Your task to perform on an android device: Search for asus zenbook on ebay.com, select the first entry, and add it to the cart. Image 0: 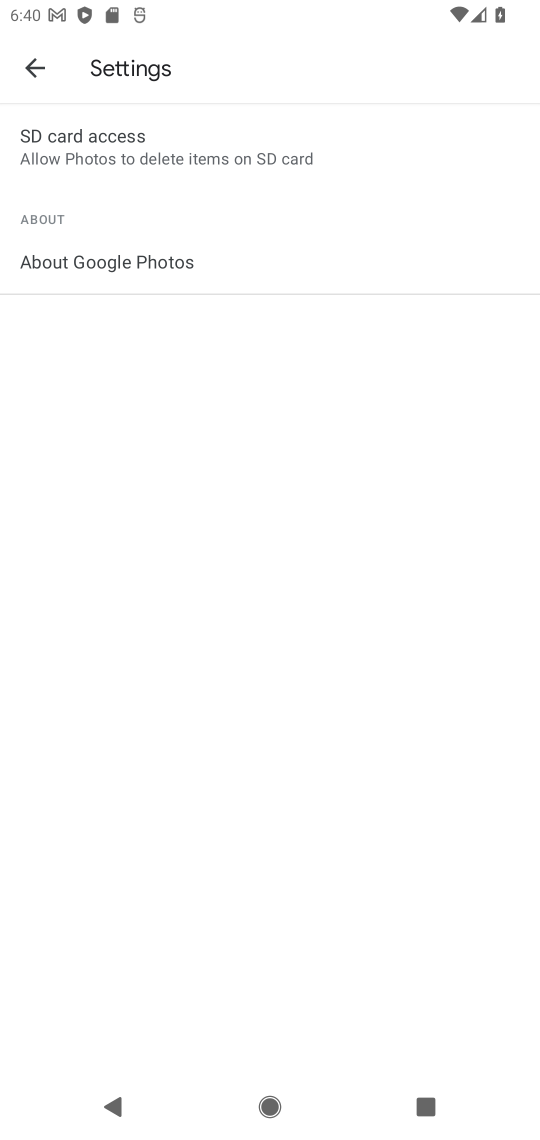
Step 0: press home button
Your task to perform on an android device: Search for asus zenbook on ebay.com, select the first entry, and add it to the cart. Image 1: 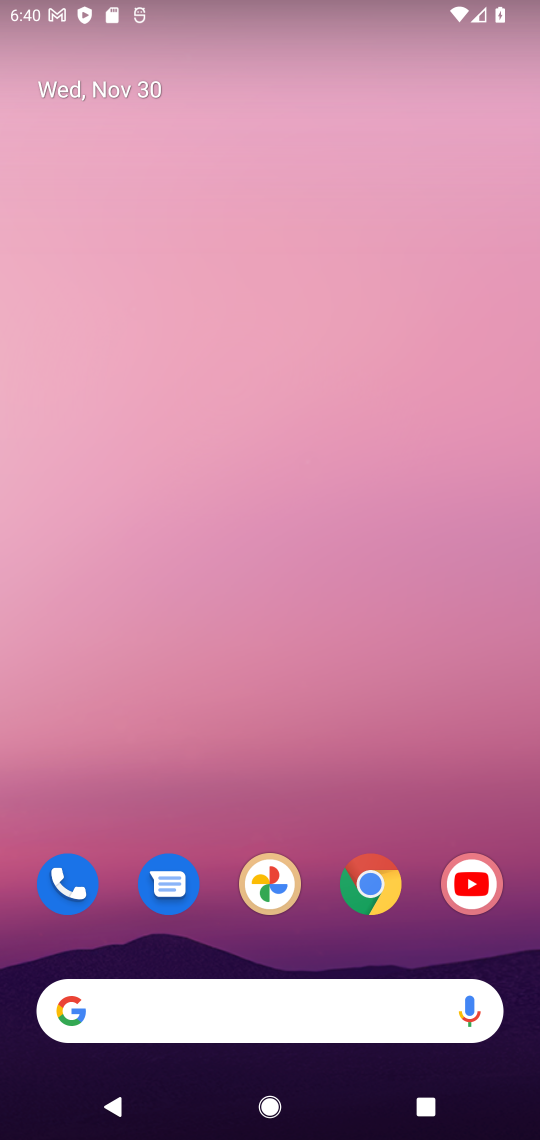
Step 1: click (353, 886)
Your task to perform on an android device: Search for asus zenbook on ebay.com, select the first entry, and add it to the cart. Image 2: 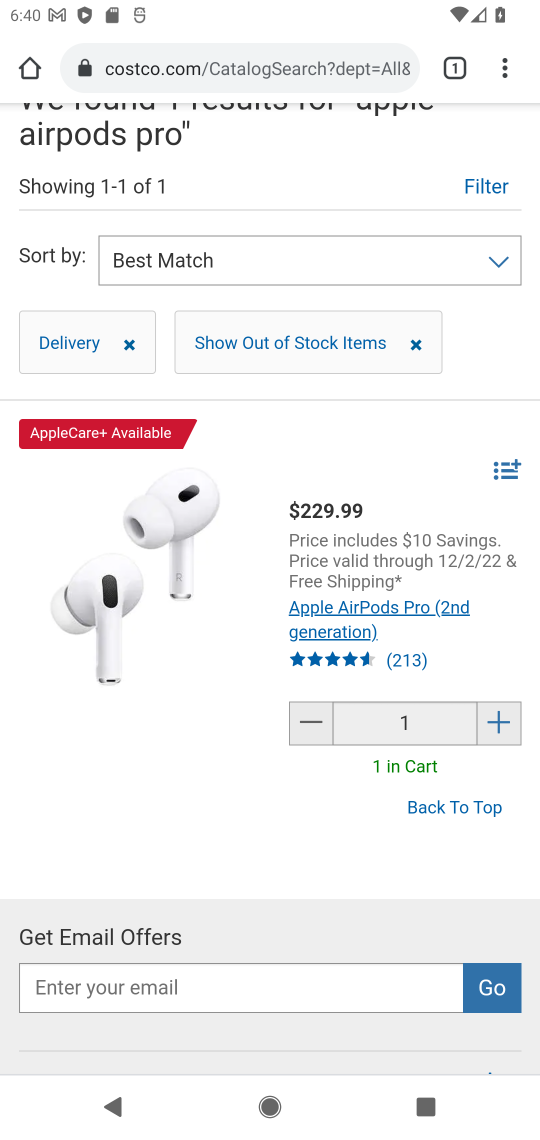
Step 2: click (223, 61)
Your task to perform on an android device: Search for asus zenbook on ebay.com, select the first entry, and add it to the cart. Image 3: 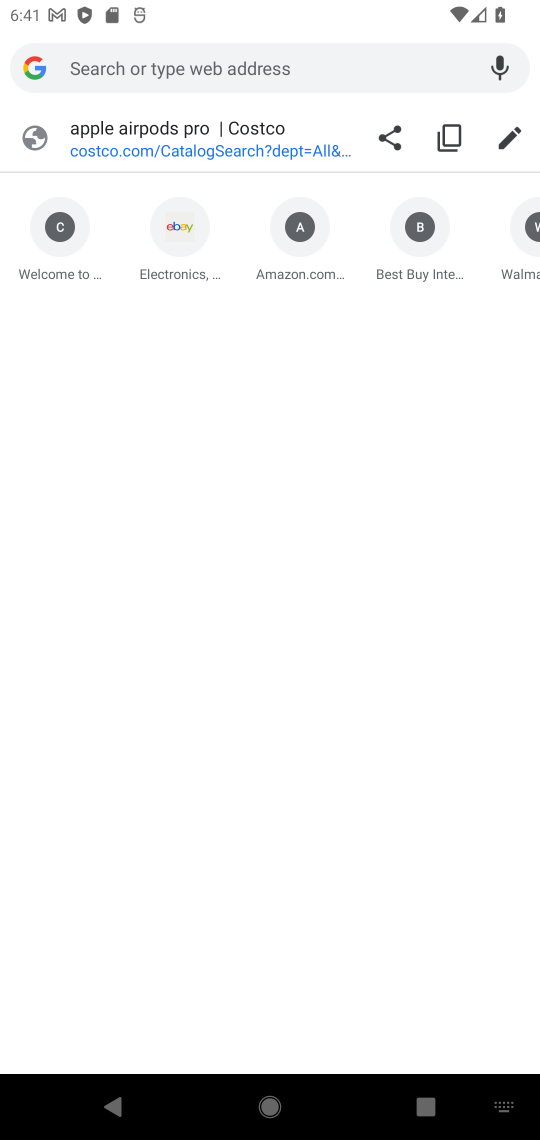
Step 3: type "ebay.com"
Your task to perform on an android device: Search for asus zenbook on ebay.com, select the first entry, and add it to the cart. Image 4: 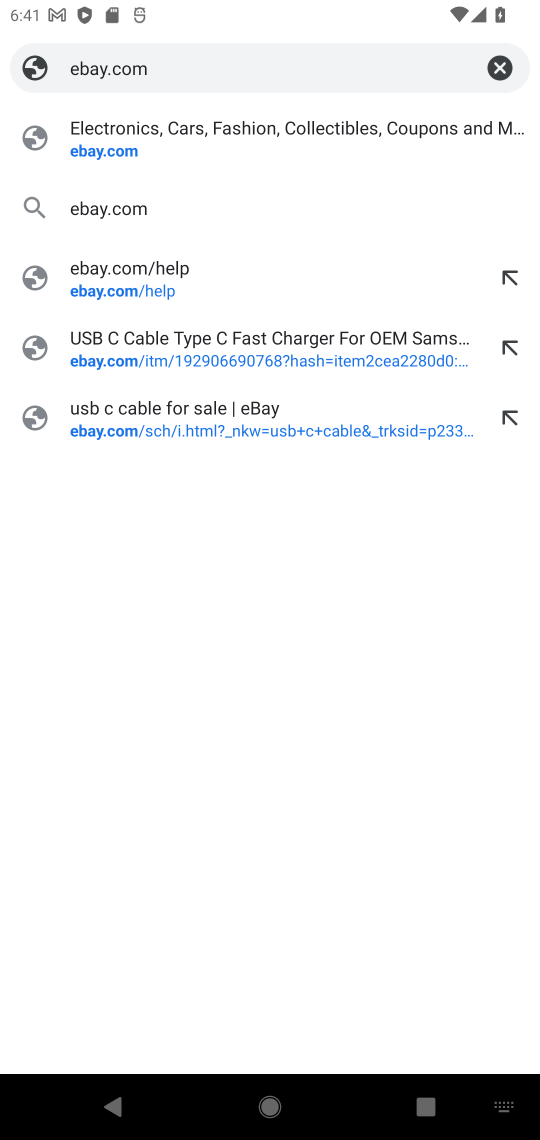
Step 4: click (91, 152)
Your task to perform on an android device: Search for asus zenbook on ebay.com, select the first entry, and add it to the cart. Image 5: 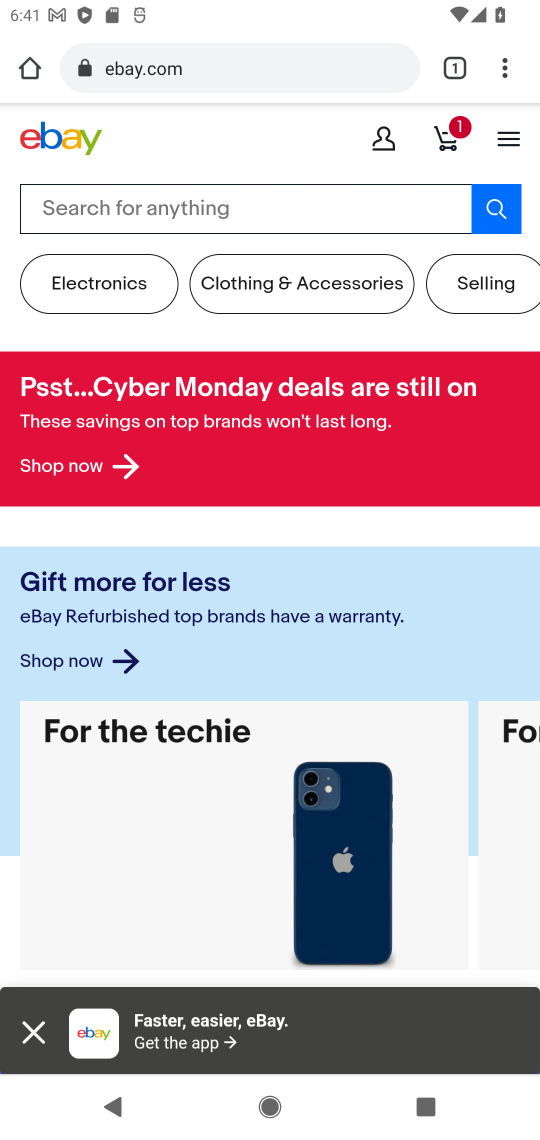
Step 5: click (140, 208)
Your task to perform on an android device: Search for asus zenbook on ebay.com, select the first entry, and add it to the cart. Image 6: 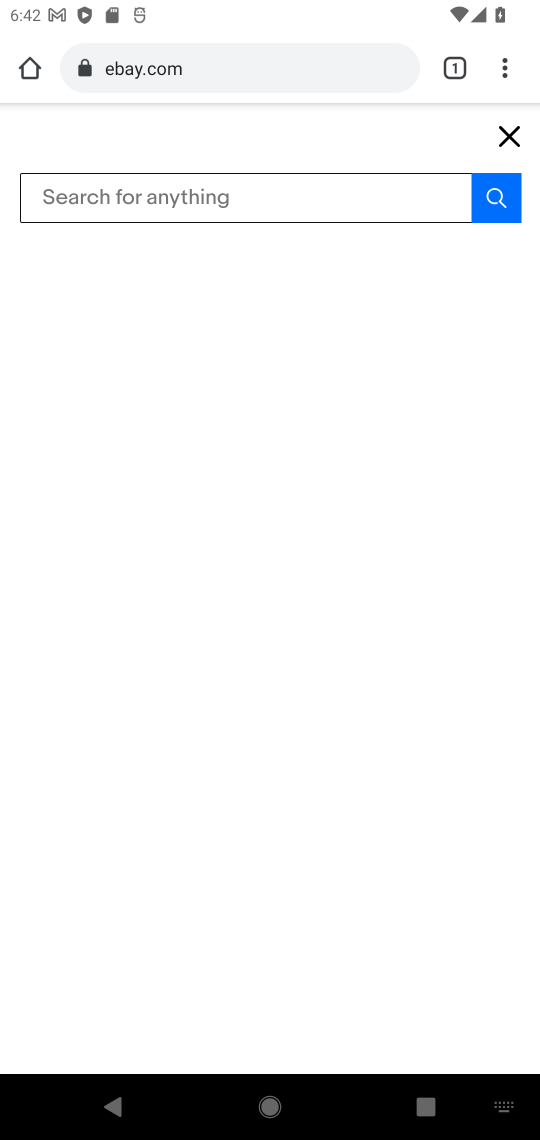
Step 6: type "asus zenbook"
Your task to perform on an android device: Search for asus zenbook on ebay.com, select the first entry, and add it to the cart. Image 7: 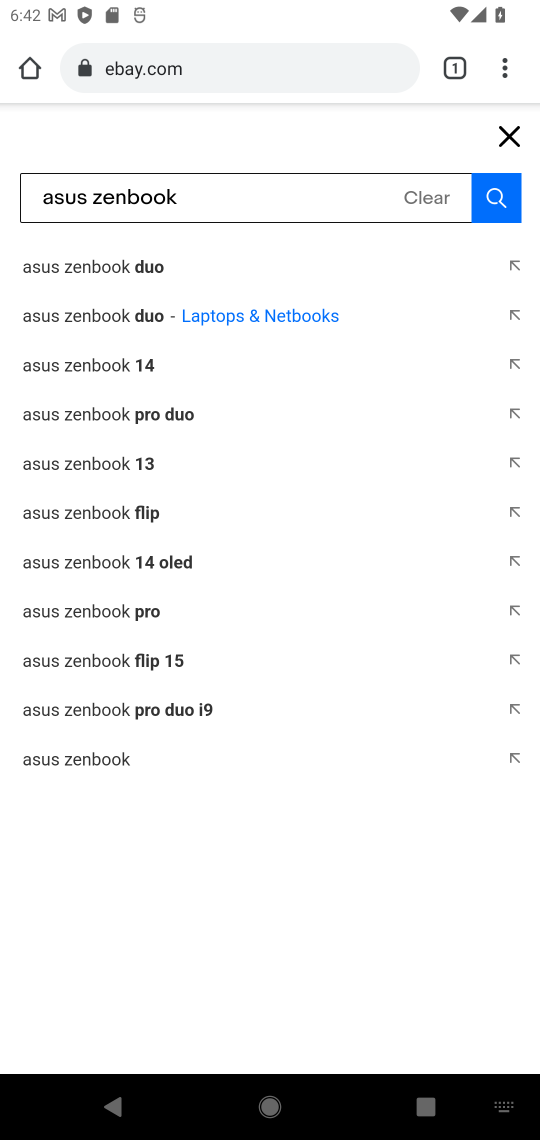
Step 7: click (79, 763)
Your task to perform on an android device: Search for asus zenbook on ebay.com, select the first entry, and add it to the cart. Image 8: 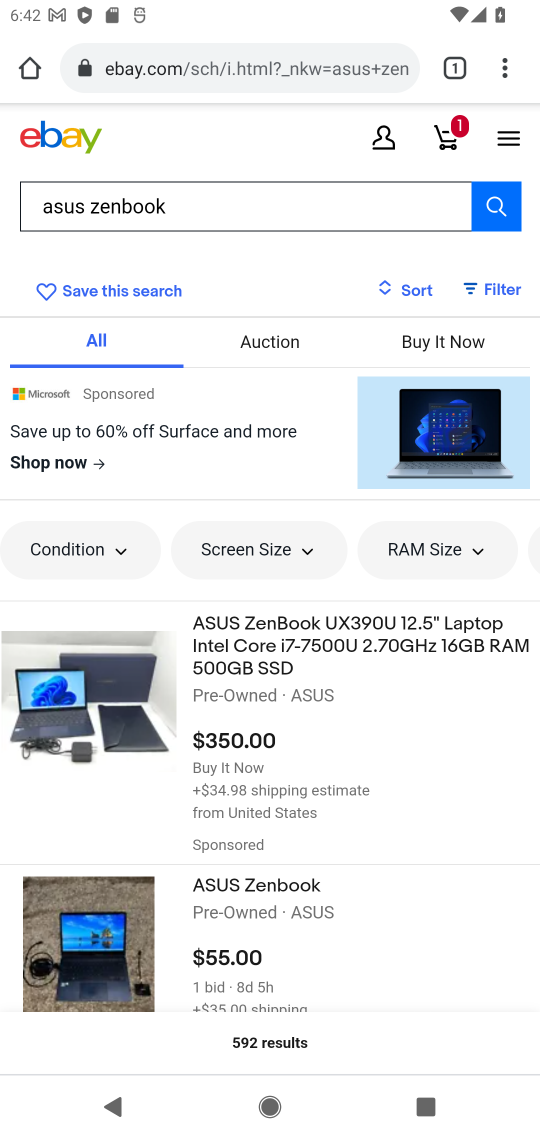
Step 8: click (315, 643)
Your task to perform on an android device: Search for asus zenbook on ebay.com, select the first entry, and add it to the cart. Image 9: 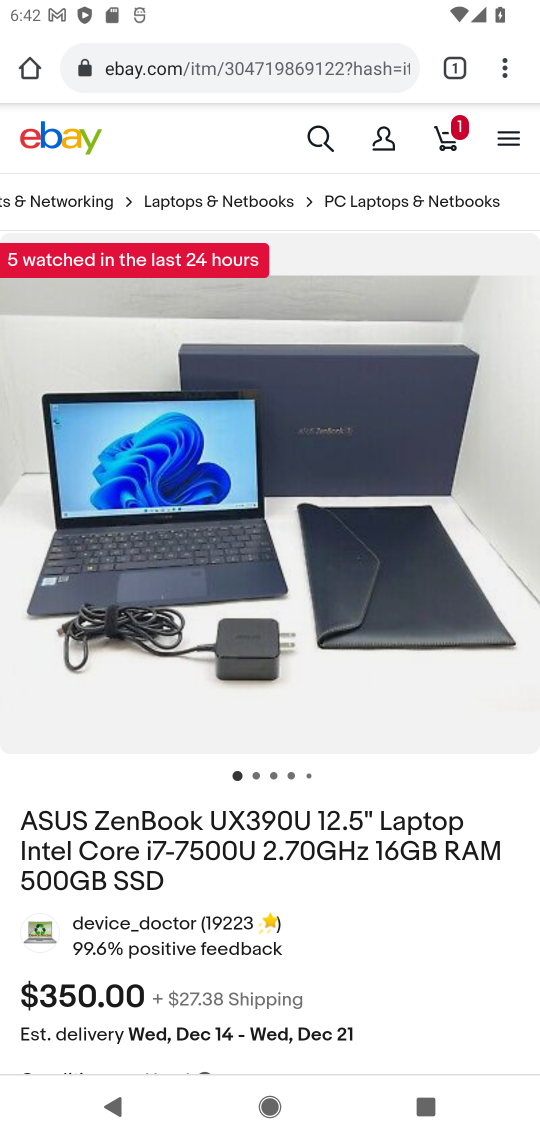
Step 9: drag from (327, 804) to (341, 450)
Your task to perform on an android device: Search for asus zenbook on ebay.com, select the first entry, and add it to the cart. Image 10: 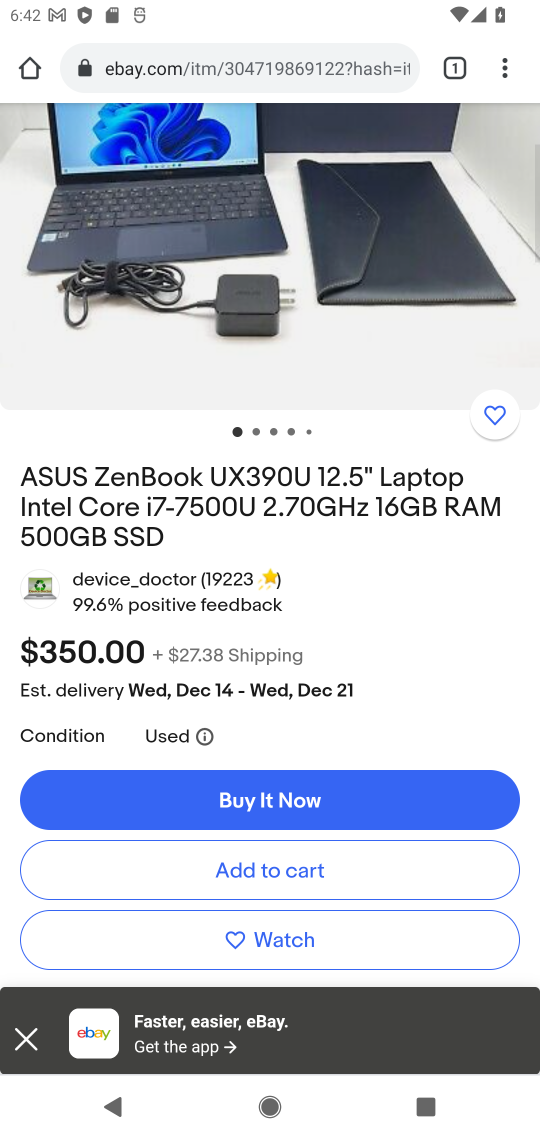
Step 10: drag from (350, 828) to (350, 489)
Your task to perform on an android device: Search for asus zenbook on ebay.com, select the first entry, and add it to the cart. Image 11: 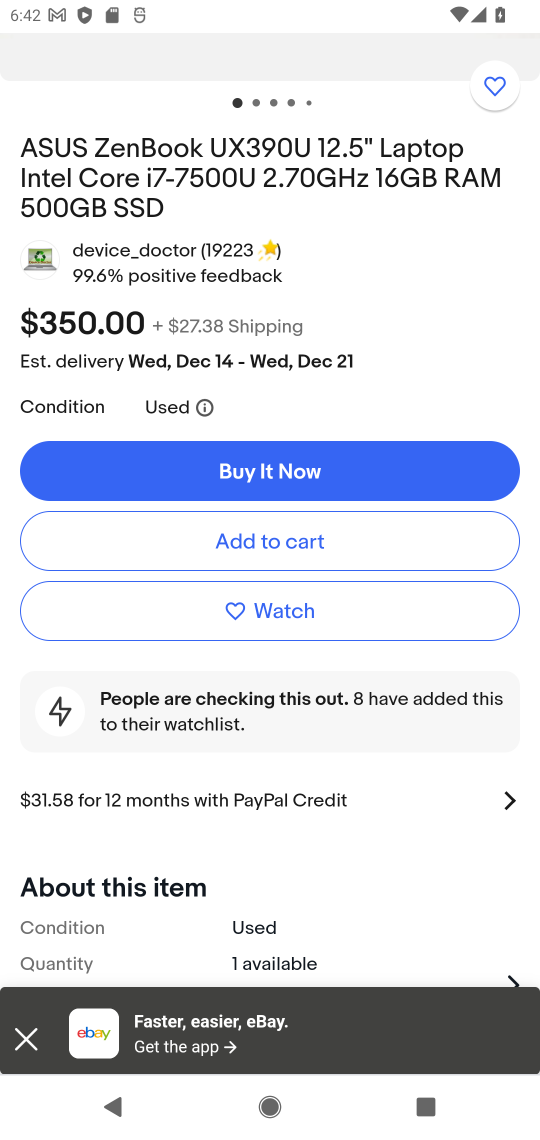
Step 11: click (257, 550)
Your task to perform on an android device: Search for asus zenbook on ebay.com, select the first entry, and add it to the cart. Image 12: 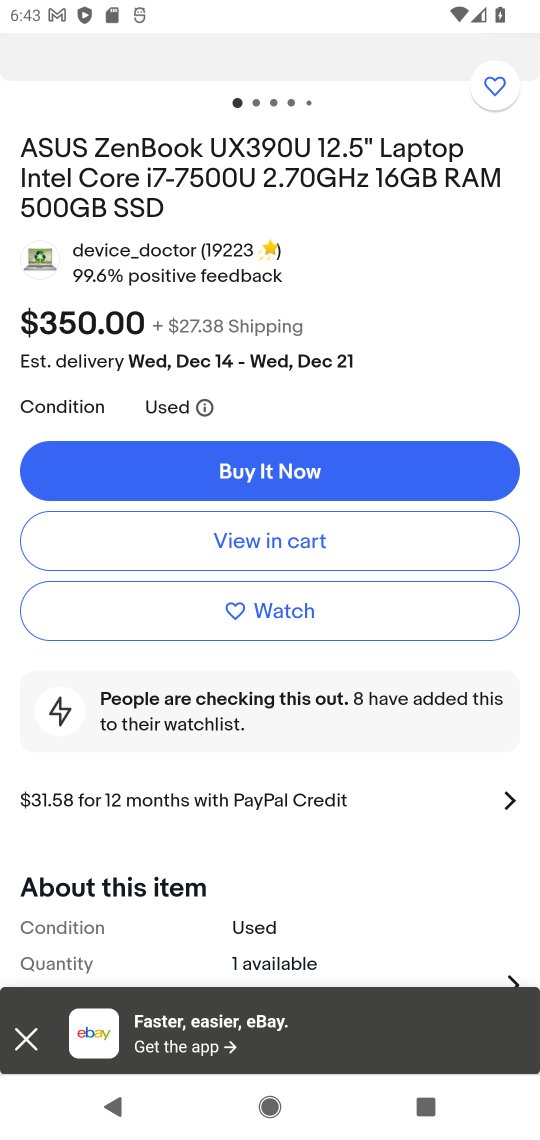
Step 12: task complete